Your task to perform on an android device: turn on the 12-hour format for clock Image 0: 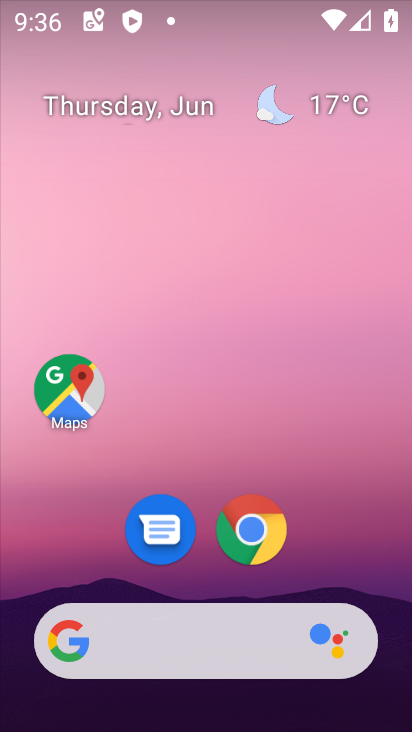
Step 0: drag from (352, 312) to (338, 165)
Your task to perform on an android device: turn on the 12-hour format for clock Image 1: 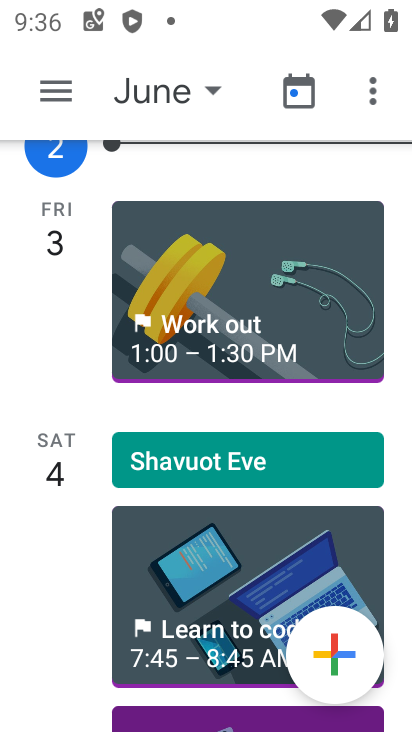
Step 1: press home button
Your task to perform on an android device: turn on the 12-hour format for clock Image 2: 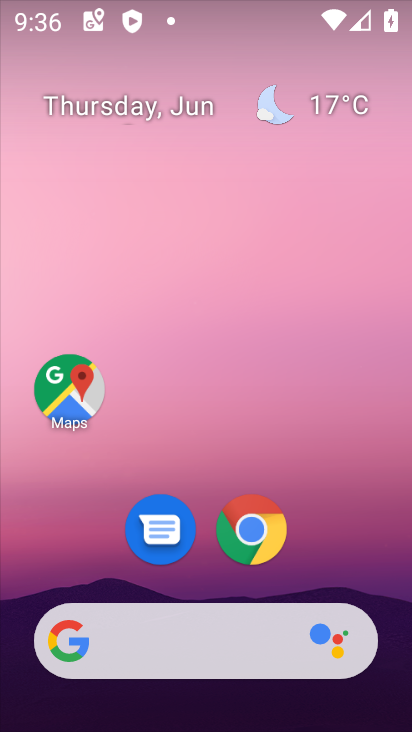
Step 2: drag from (400, 618) to (309, 179)
Your task to perform on an android device: turn on the 12-hour format for clock Image 3: 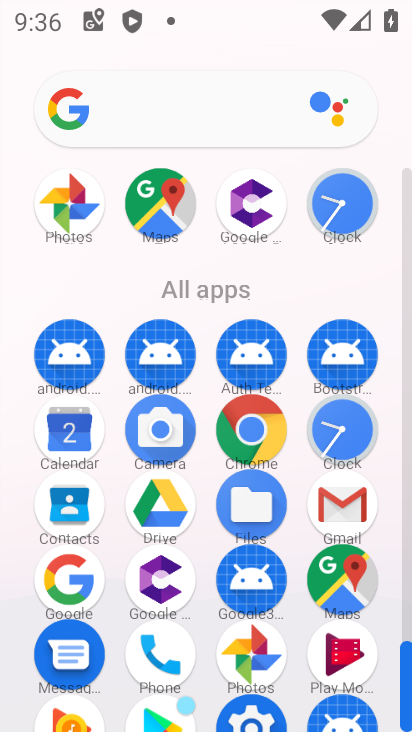
Step 3: click (342, 428)
Your task to perform on an android device: turn on the 12-hour format for clock Image 4: 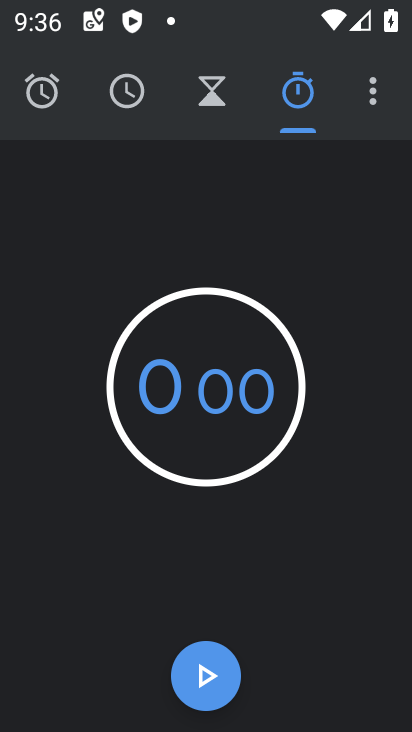
Step 4: click (373, 99)
Your task to perform on an android device: turn on the 12-hour format for clock Image 5: 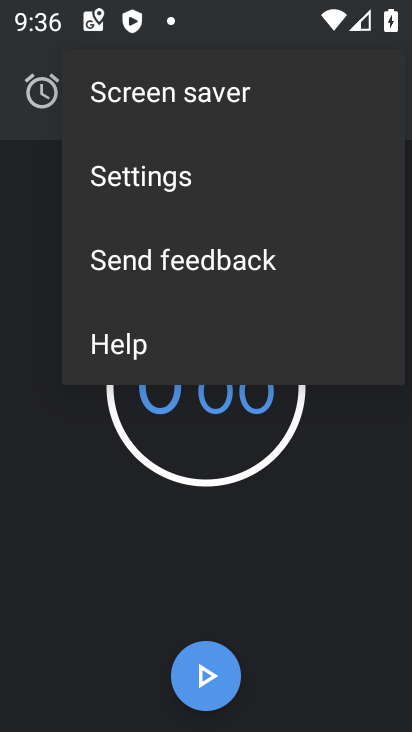
Step 5: click (140, 165)
Your task to perform on an android device: turn on the 12-hour format for clock Image 6: 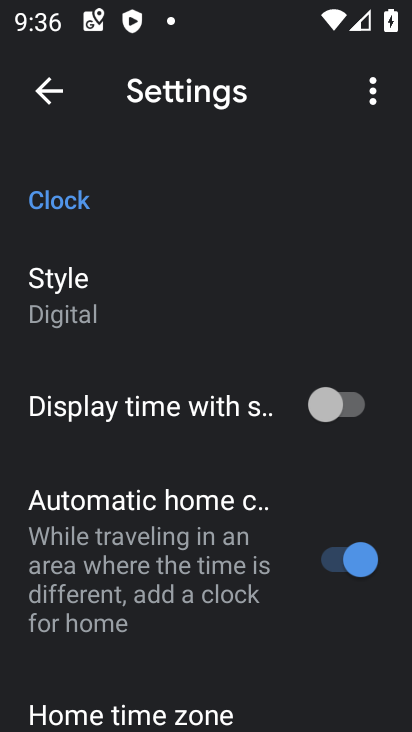
Step 6: drag from (221, 576) to (160, 219)
Your task to perform on an android device: turn on the 12-hour format for clock Image 7: 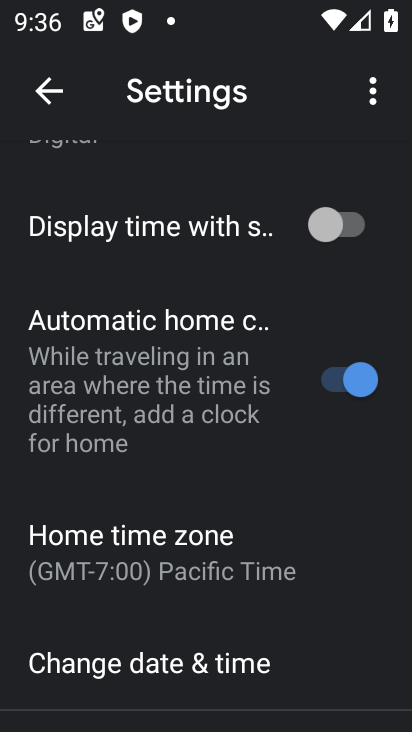
Step 7: drag from (291, 604) to (166, 150)
Your task to perform on an android device: turn on the 12-hour format for clock Image 8: 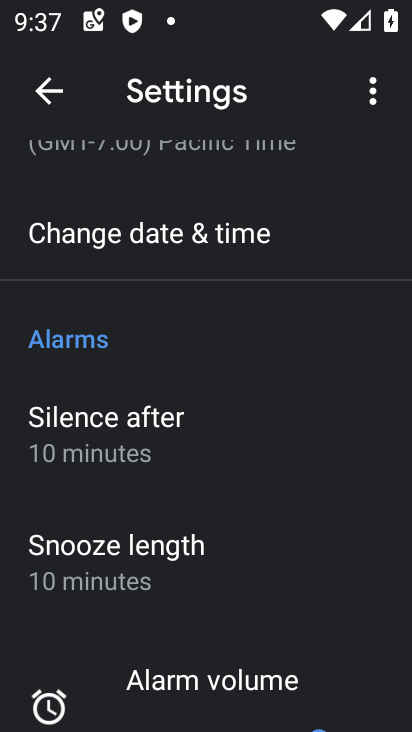
Step 8: click (148, 243)
Your task to perform on an android device: turn on the 12-hour format for clock Image 9: 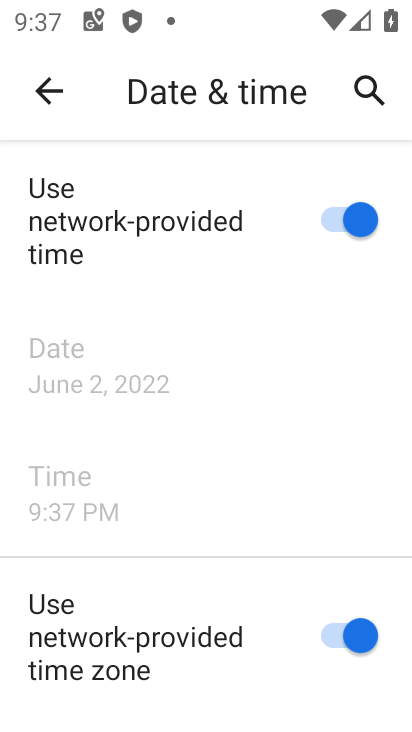
Step 9: task complete